Your task to perform on an android device: change timer sound Image 0: 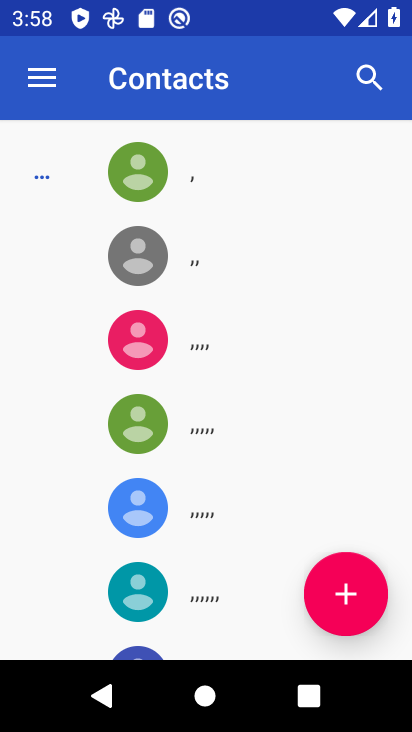
Step 0: press home button
Your task to perform on an android device: change timer sound Image 1: 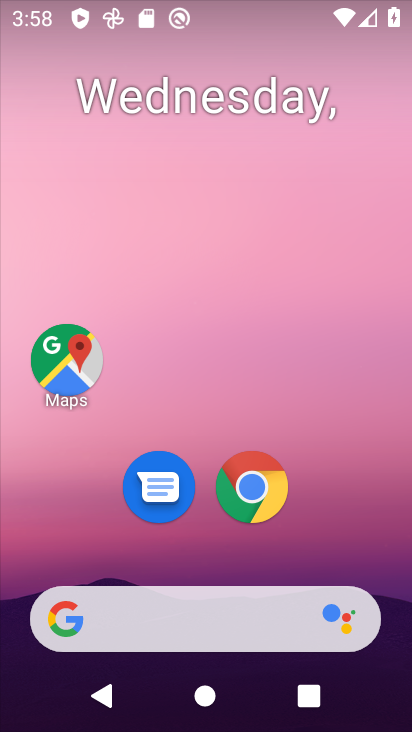
Step 1: drag from (372, 511) to (366, 217)
Your task to perform on an android device: change timer sound Image 2: 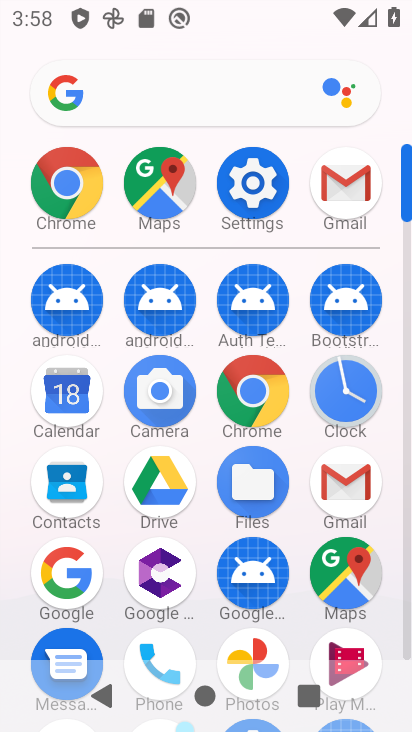
Step 2: click (374, 414)
Your task to perform on an android device: change timer sound Image 3: 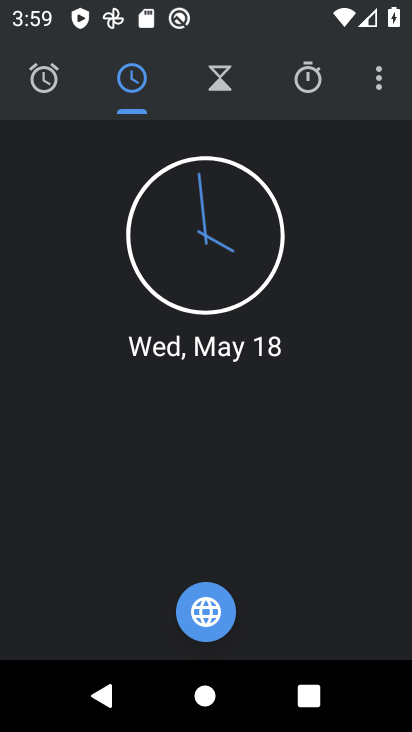
Step 3: click (377, 95)
Your task to perform on an android device: change timer sound Image 4: 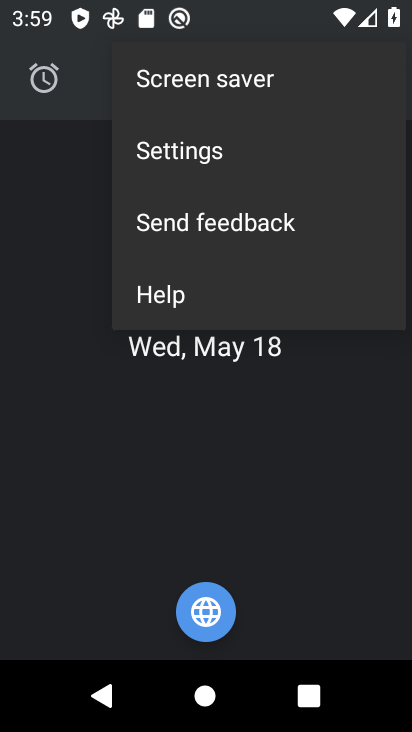
Step 4: click (225, 171)
Your task to perform on an android device: change timer sound Image 5: 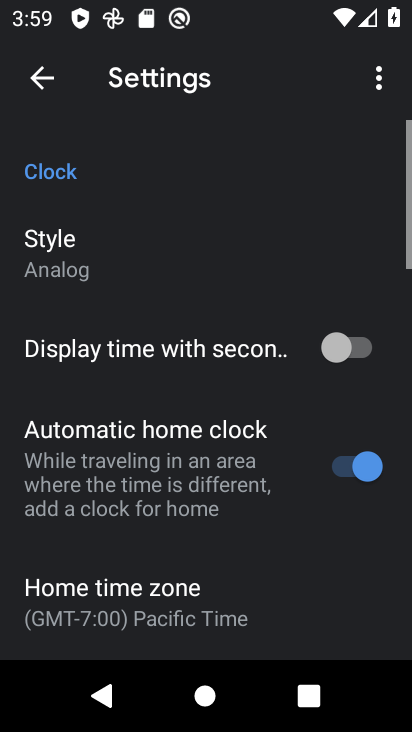
Step 5: drag from (279, 513) to (291, 420)
Your task to perform on an android device: change timer sound Image 6: 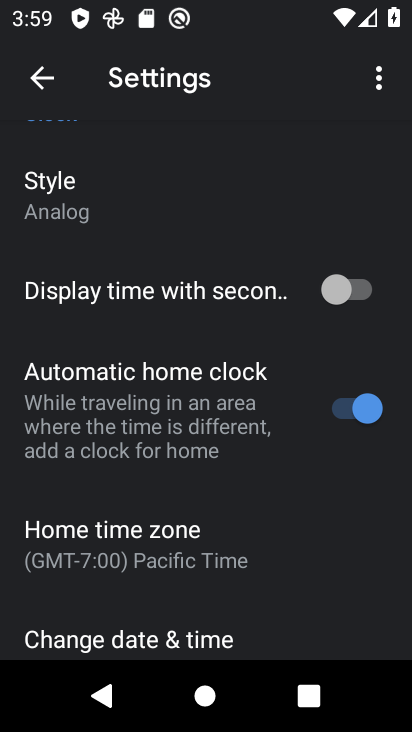
Step 6: drag from (298, 542) to (310, 455)
Your task to perform on an android device: change timer sound Image 7: 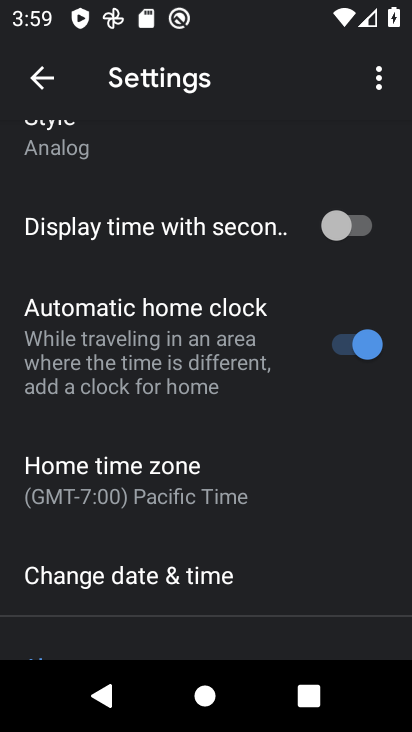
Step 7: drag from (297, 569) to (299, 485)
Your task to perform on an android device: change timer sound Image 8: 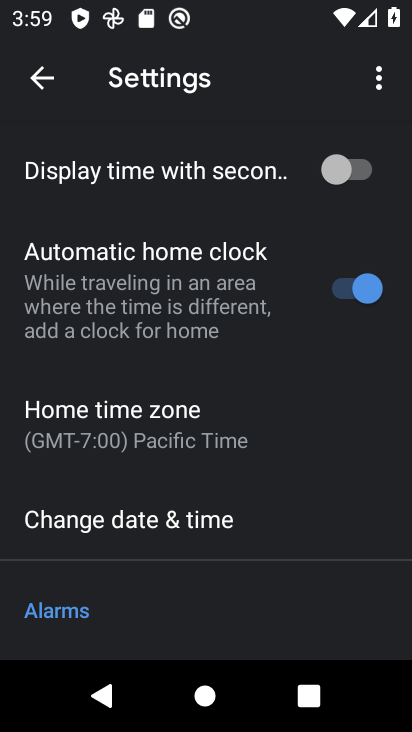
Step 8: drag from (280, 586) to (292, 491)
Your task to perform on an android device: change timer sound Image 9: 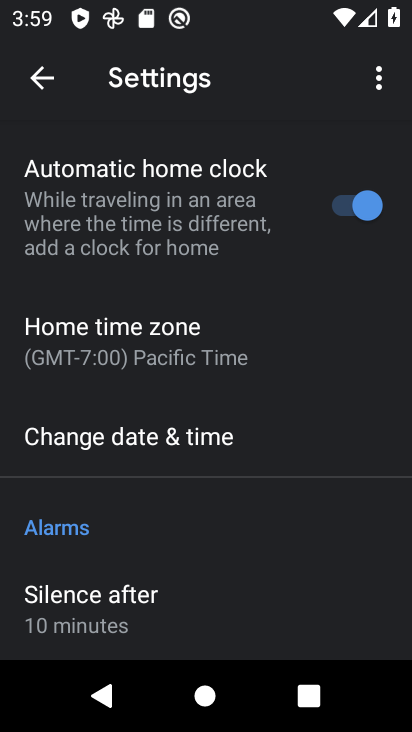
Step 9: drag from (274, 584) to (288, 519)
Your task to perform on an android device: change timer sound Image 10: 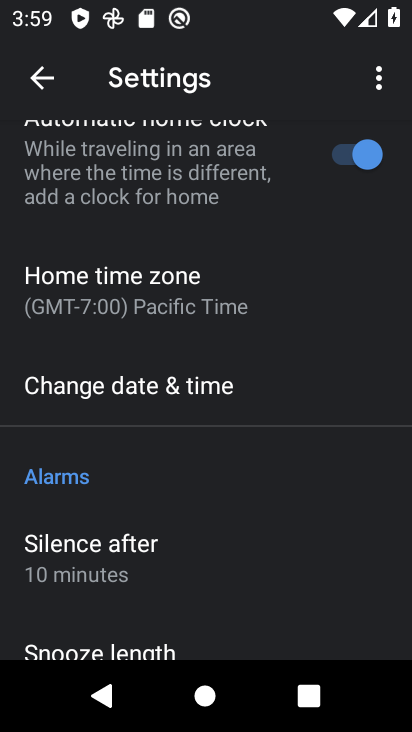
Step 10: drag from (283, 615) to (292, 525)
Your task to perform on an android device: change timer sound Image 11: 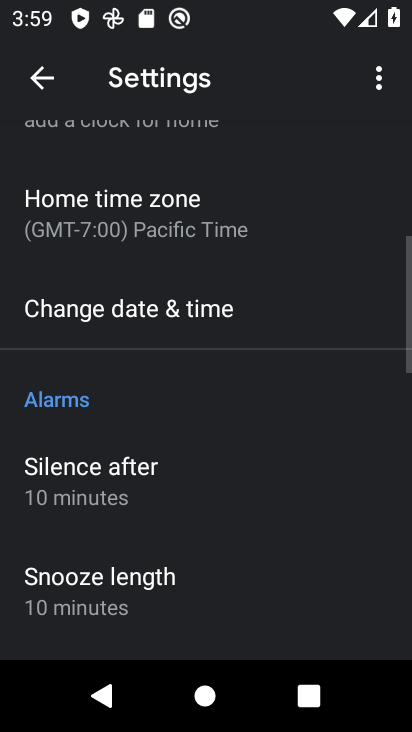
Step 11: drag from (270, 611) to (290, 514)
Your task to perform on an android device: change timer sound Image 12: 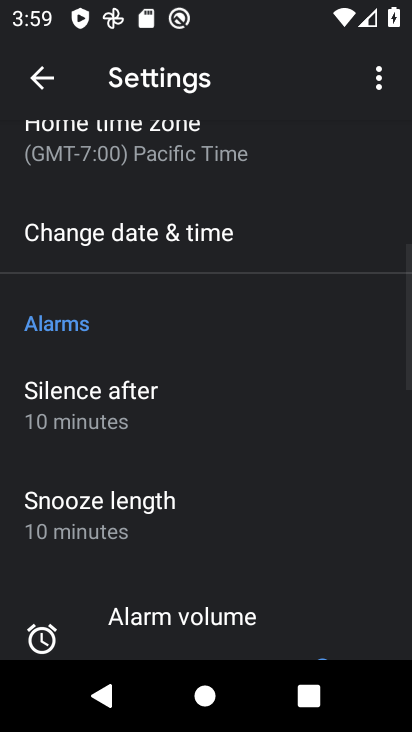
Step 12: drag from (276, 592) to (301, 508)
Your task to perform on an android device: change timer sound Image 13: 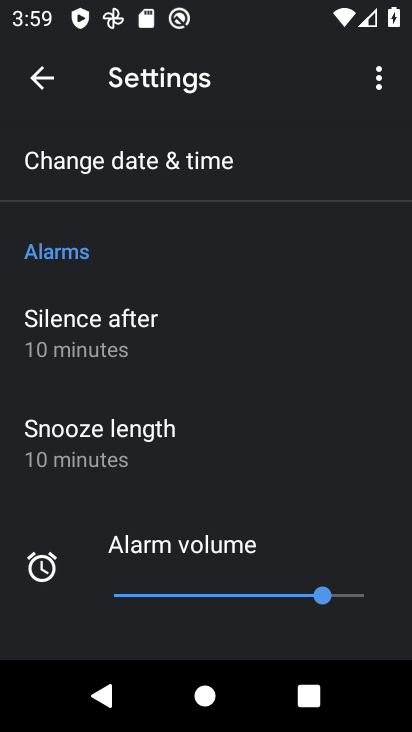
Step 13: drag from (292, 616) to (347, 353)
Your task to perform on an android device: change timer sound Image 14: 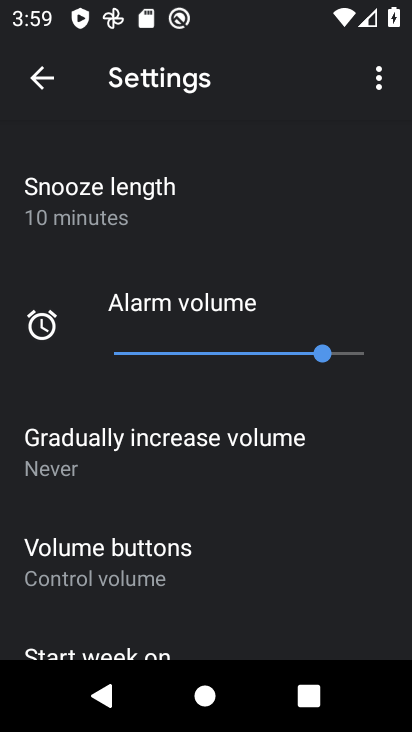
Step 14: drag from (314, 576) to (326, 502)
Your task to perform on an android device: change timer sound Image 15: 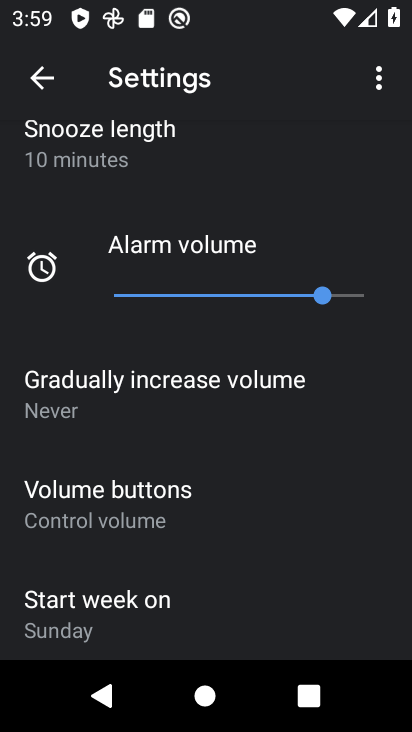
Step 15: drag from (306, 589) to (318, 513)
Your task to perform on an android device: change timer sound Image 16: 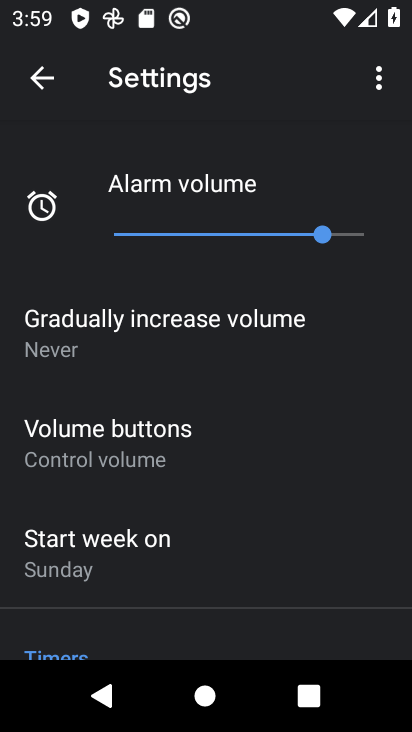
Step 16: drag from (303, 604) to (314, 501)
Your task to perform on an android device: change timer sound Image 17: 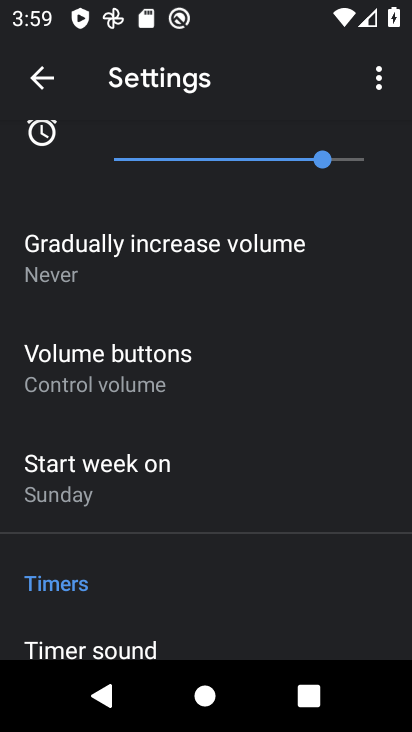
Step 17: drag from (296, 592) to (307, 508)
Your task to perform on an android device: change timer sound Image 18: 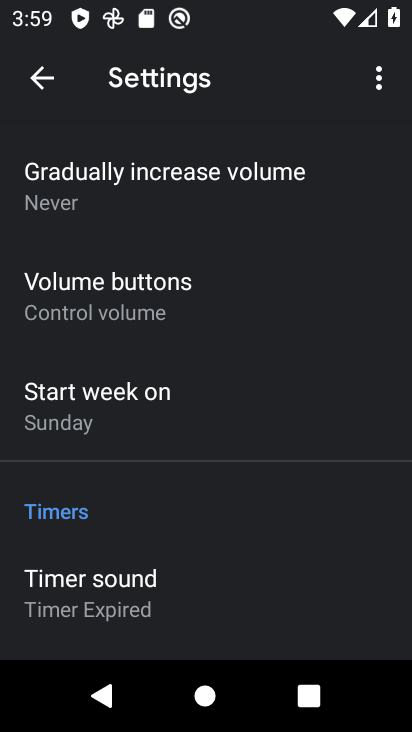
Step 18: click (177, 594)
Your task to perform on an android device: change timer sound Image 19: 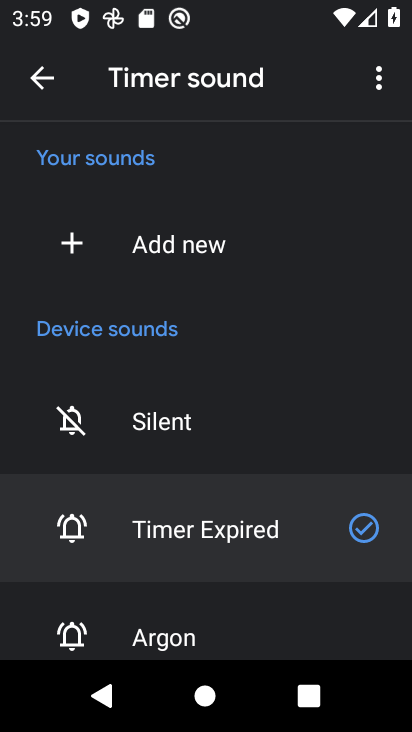
Step 19: click (159, 443)
Your task to perform on an android device: change timer sound Image 20: 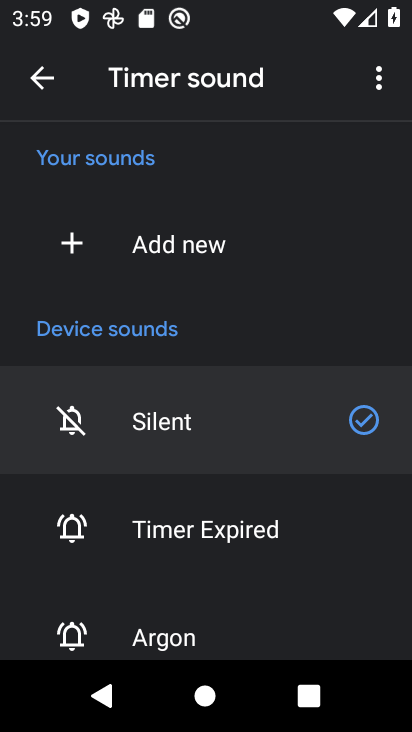
Step 20: task complete